Your task to perform on an android device: Open accessibility settings Image 0: 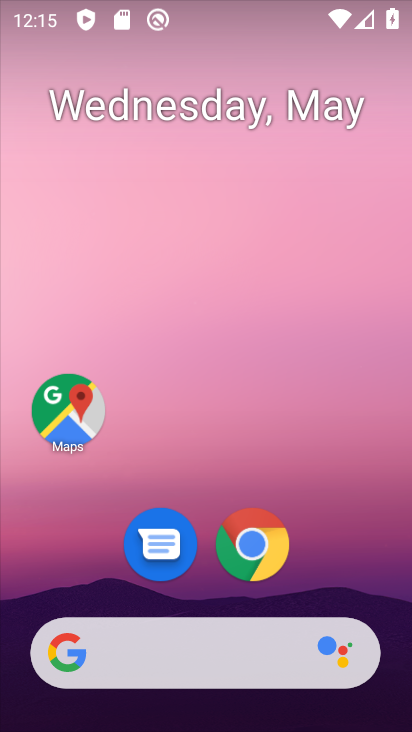
Step 0: drag from (342, 556) to (330, 185)
Your task to perform on an android device: Open accessibility settings Image 1: 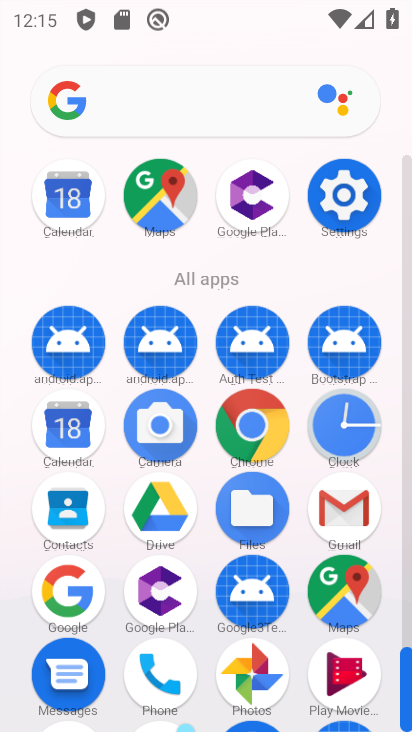
Step 1: click (342, 191)
Your task to perform on an android device: Open accessibility settings Image 2: 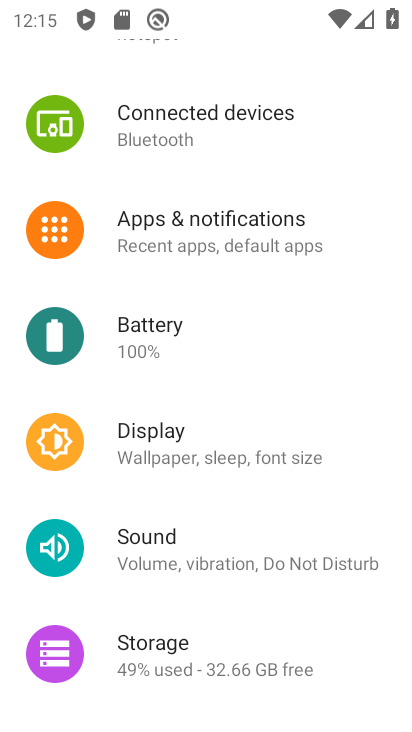
Step 2: drag from (227, 614) to (299, 194)
Your task to perform on an android device: Open accessibility settings Image 3: 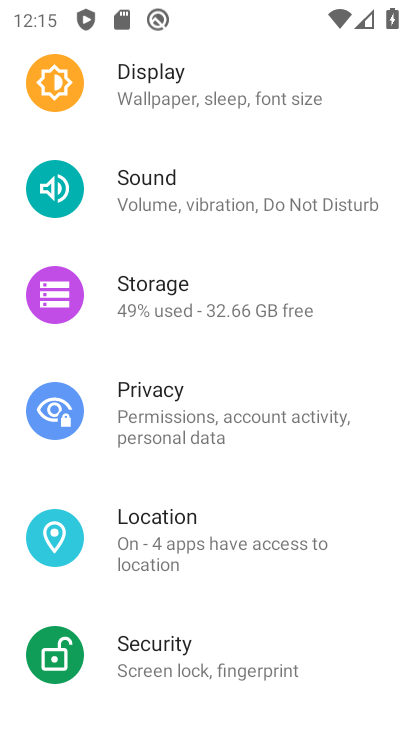
Step 3: drag from (251, 589) to (310, 260)
Your task to perform on an android device: Open accessibility settings Image 4: 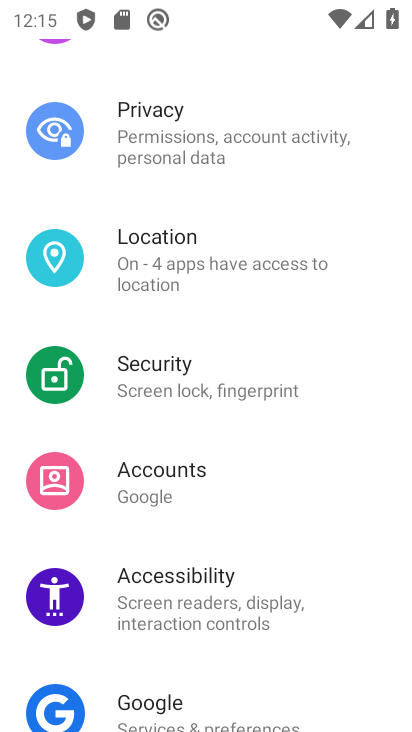
Step 4: click (205, 608)
Your task to perform on an android device: Open accessibility settings Image 5: 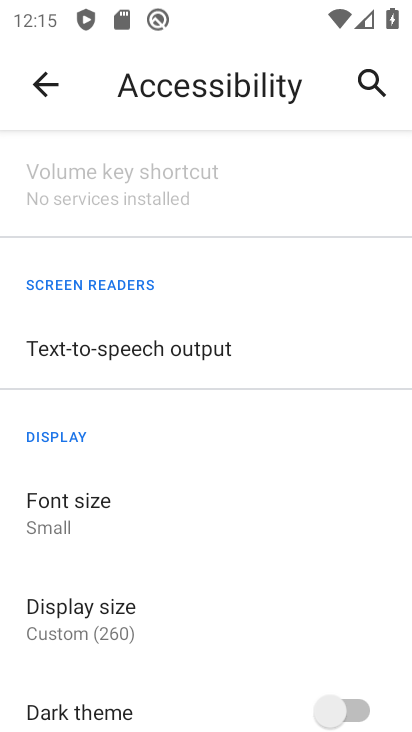
Step 5: task complete